Your task to perform on an android device: Open the map Image 0: 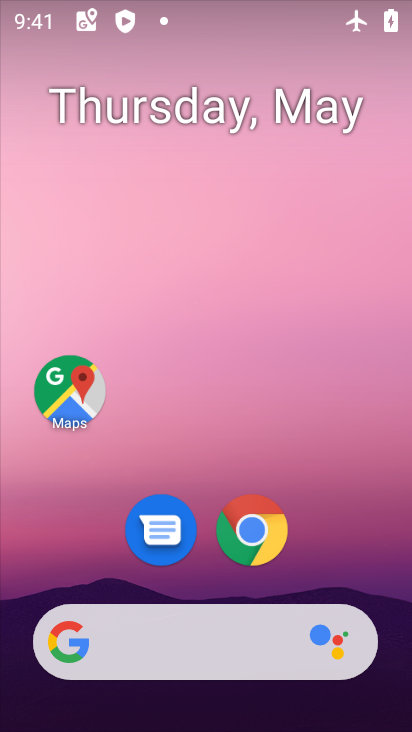
Step 0: click (64, 381)
Your task to perform on an android device: Open the map Image 1: 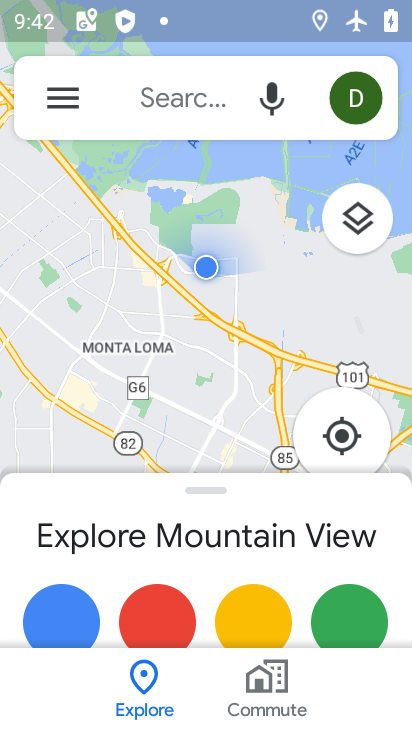
Step 1: task complete